Your task to perform on an android device: turn on wifi Image 0: 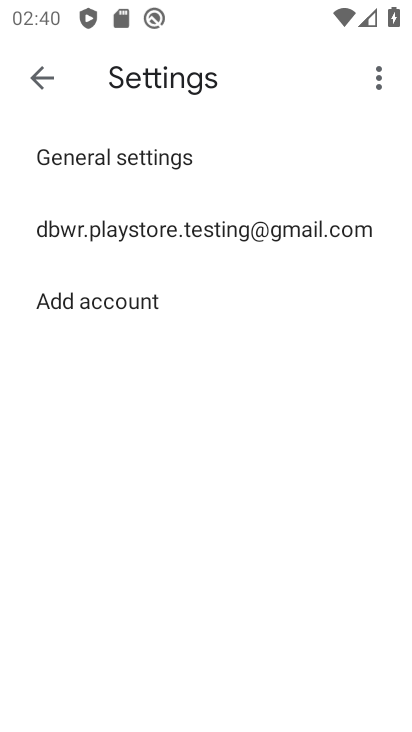
Step 0: press back button
Your task to perform on an android device: turn on wifi Image 1: 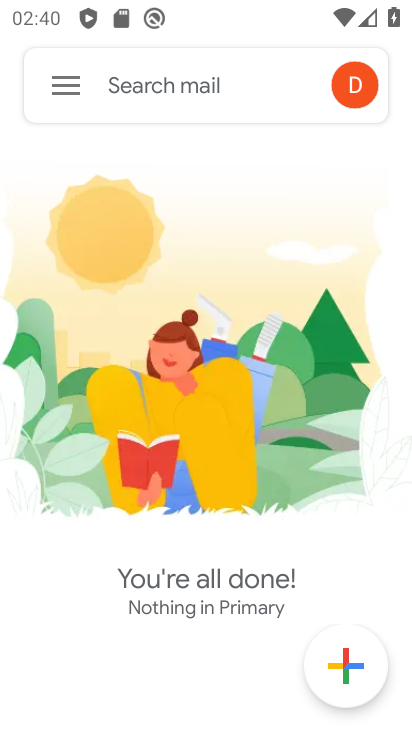
Step 1: task complete